Your task to perform on an android device: Open the Play Movies app and select the watchlist tab. Image 0: 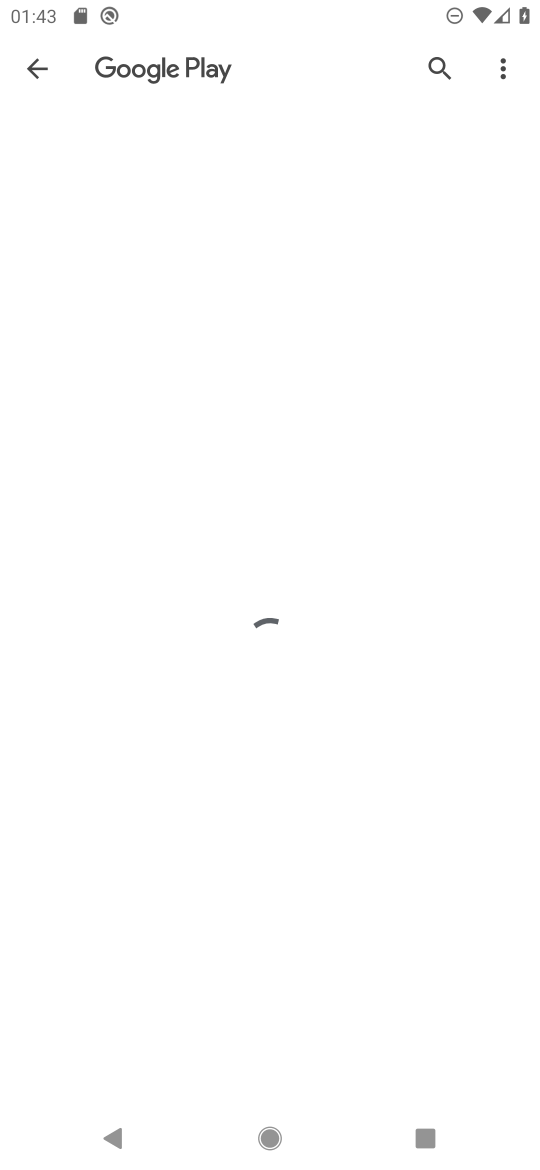
Step 0: click (291, 1000)
Your task to perform on an android device: Open the Play Movies app and select the watchlist tab. Image 1: 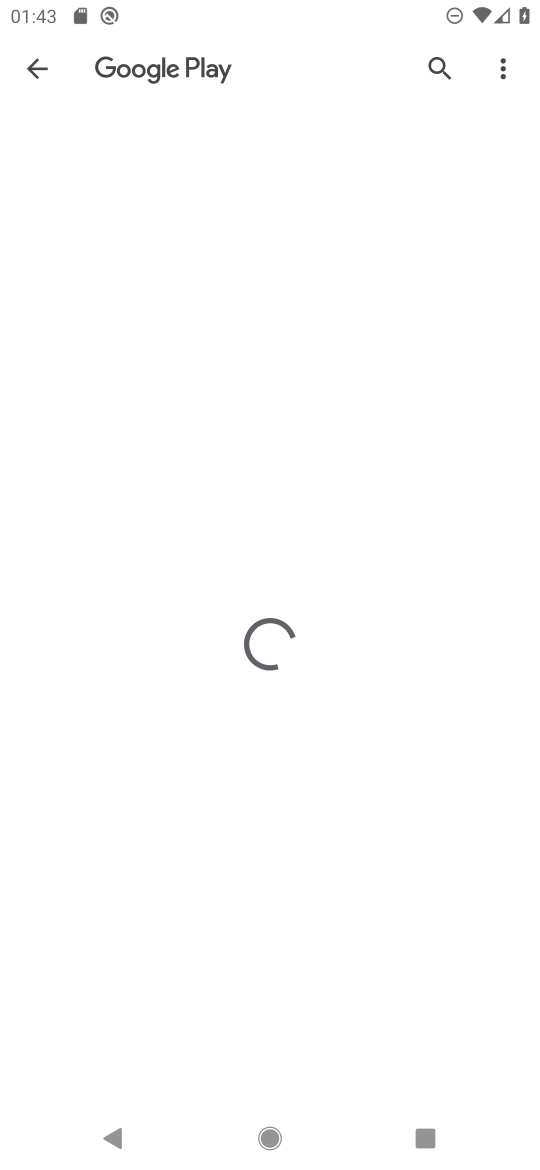
Step 1: press home button
Your task to perform on an android device: Open the Play Movies app and select the watchlist tab. Image 2: 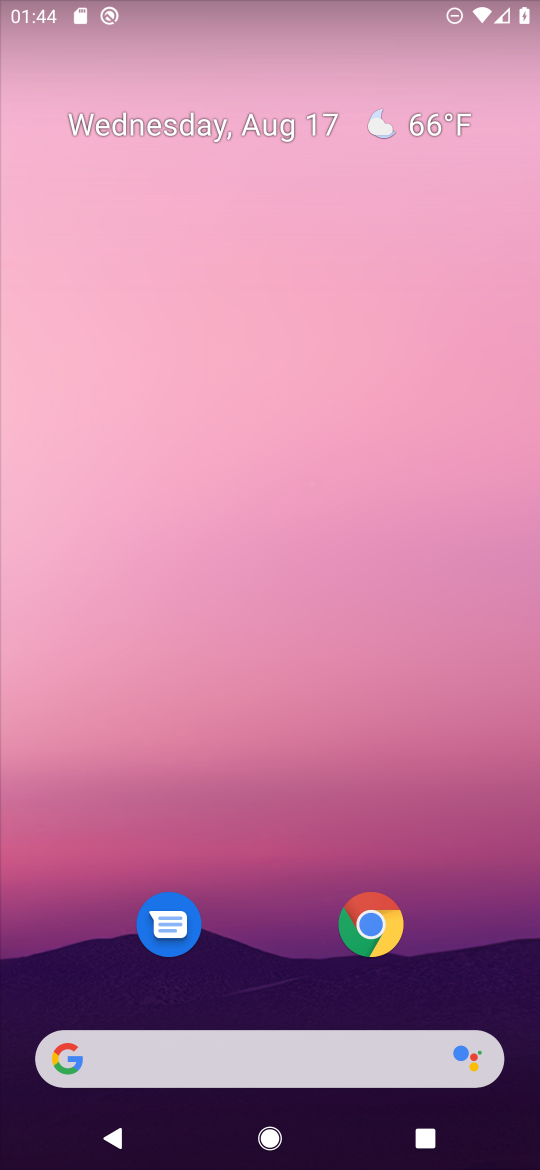
Step 2: drag from (229, 977) to (272, 6)
Your task to perform on an android device: Open the Play Movies app and select the watchlist tab. Image 3: 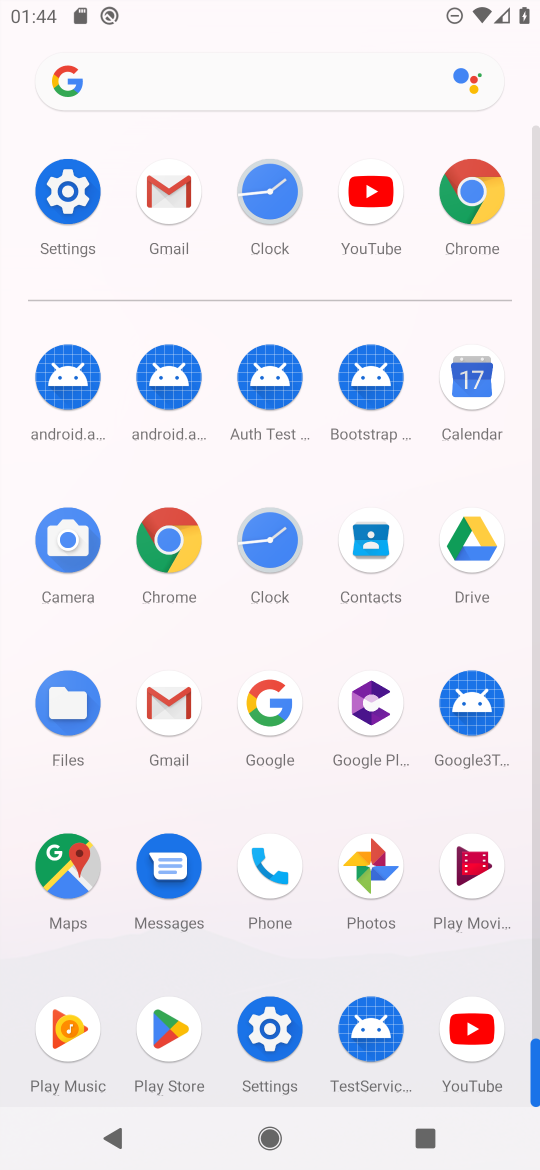
Step 3: click (475, 900)
Your task to perform on an android device: Open the Play Movies app and select the watchlist tab. Image 4: 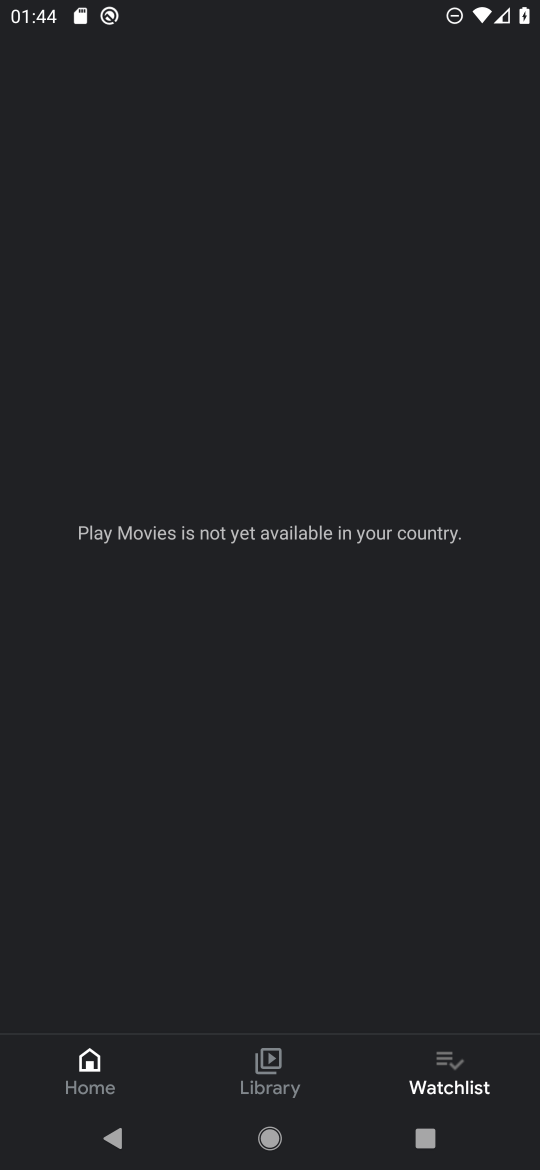
Step 4: click (470, 1071)
Your task to perform on an android device: Open the Play Movies app and select the watchlist tab. Image 5: 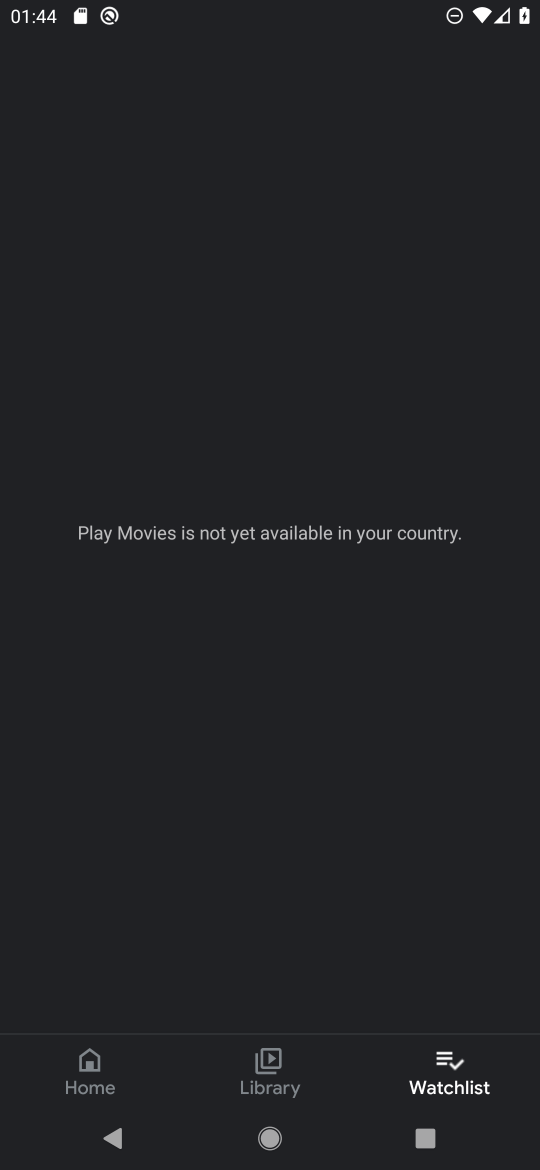
Step 5: task complete